Your task to perform on an android device: turn on location history Image 0: 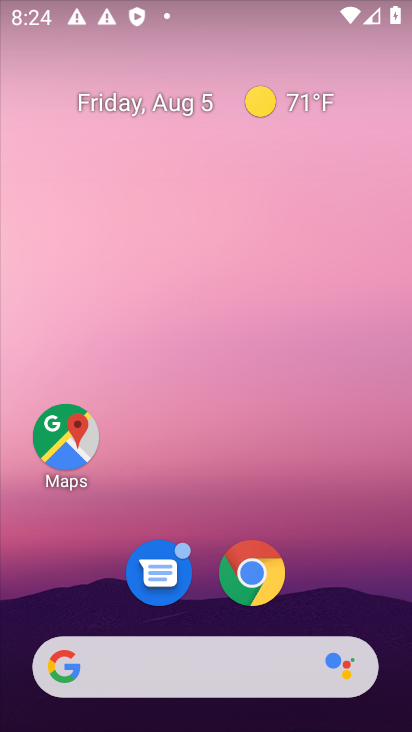
Step 0: press home button
Your task to perform on an android device: turn on location history Image 1: 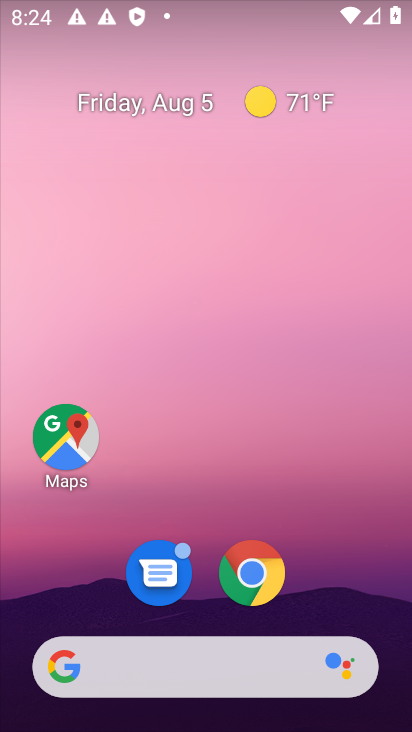
Step 1: drag from (307, 610) to (363, 126)
Your task to perform on an android device: turn on location history Image 2: 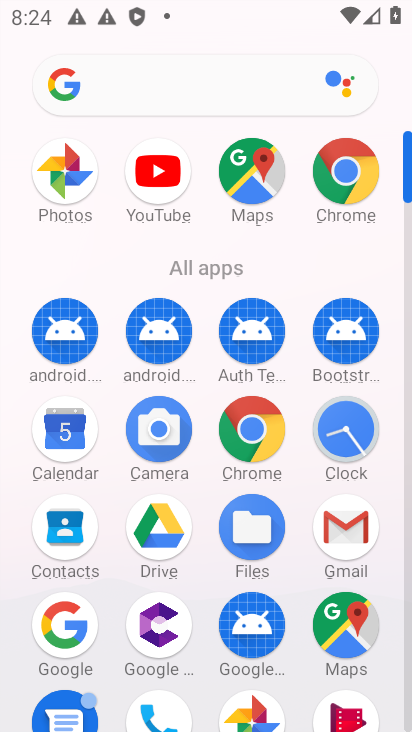
Step 2: drag from (200, 578) to (233, 24)
Your task to perform on an android device: turn on location history Image 3: 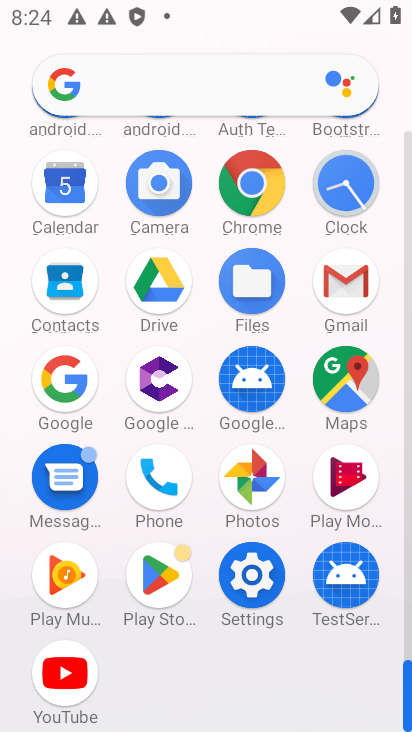
Step 3: click (249, 566)
Your task to perform on an android device: turn on location history Image 4: 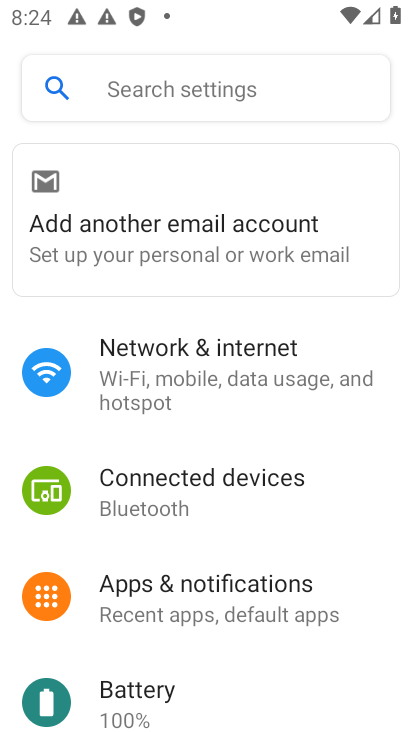
Step 4: drag from (217, 651) to (264, 156)
Your task to perform on an android device: turn on location history Image 5: 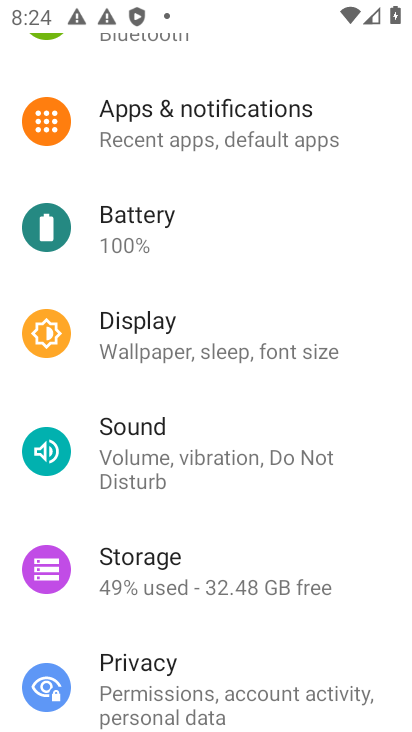
Step 5: drag from (213, 644) to (234, 234)
Your task to perform on an android device: turn on location history Image 6: 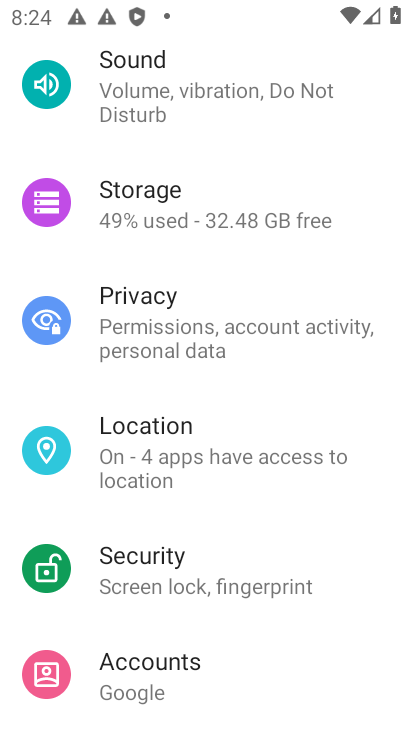
Step 6: click (198, 432)
Your task to perform on an android device: turn on location history Image 7: 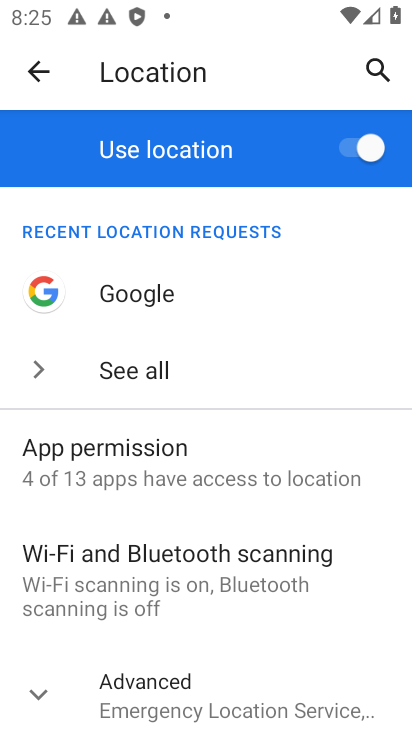
Step 7: click (42, 686)
Your task to perform on an android device: turn on location history Image 8: 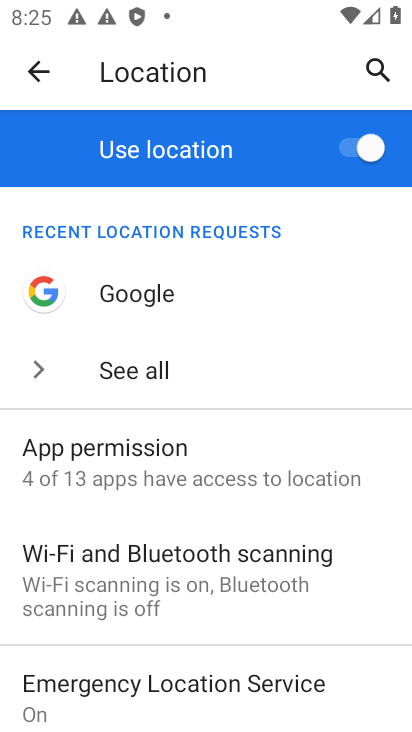
Step 8: drag from (224, 652) to (245, 240)
Your task to perform on an android device: turn on location history Image 9: 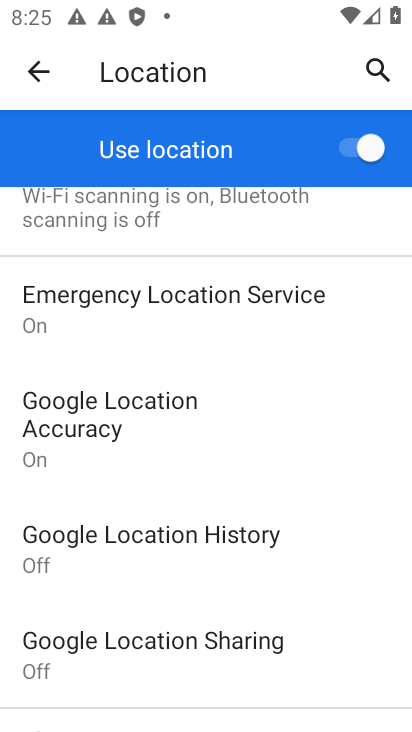
Step 9: click (99, 555)
Your task to perform on an android device: turn on location history Image 10: 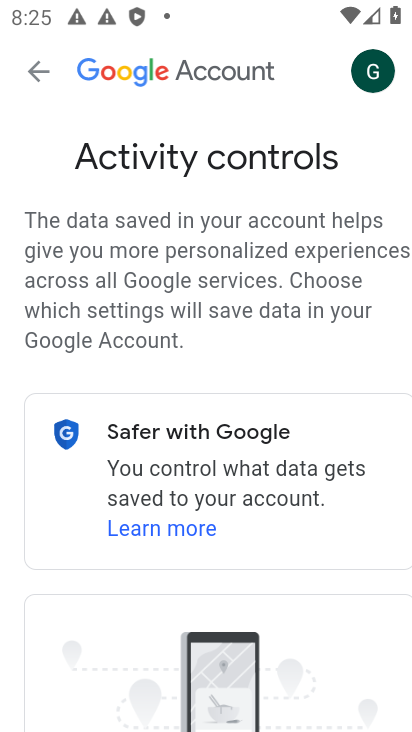
Step 10: drag from (141, 620) to (165, 245)
Your task to perform on an android device: turn on location history Image 11: 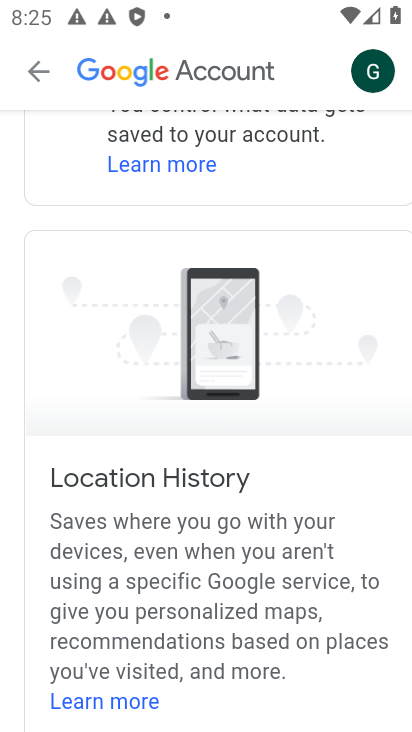
Step 11: drag from (192, 635) to (235, 338)
Your task to perform on an android device: turn on location history Image 12: 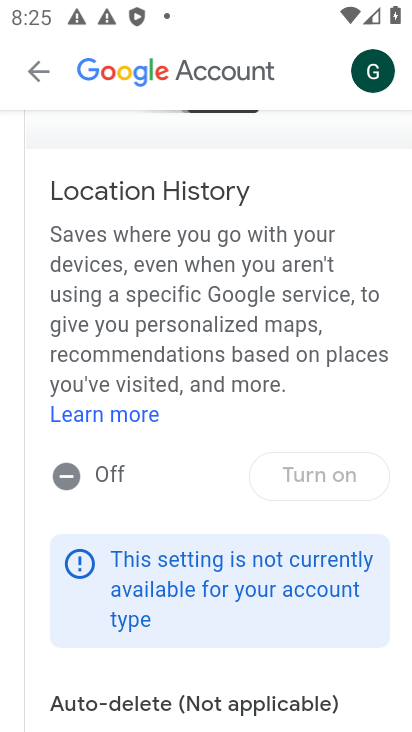
Step 12: click (322, 478)
Your task to perform on an android device: turn on location history Image 13: 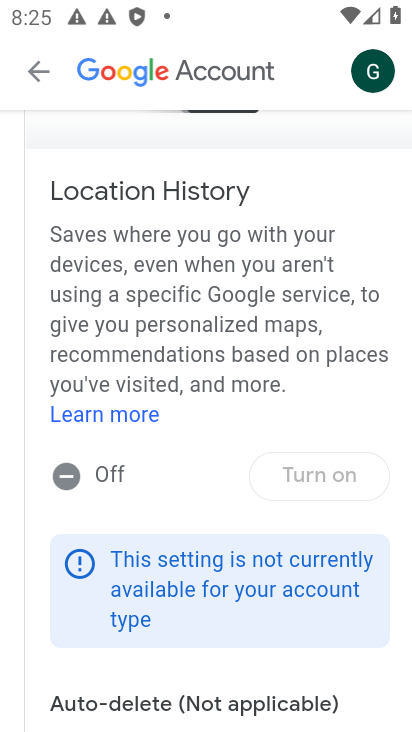
Step 13: task complete